Your task to perform on an android device: Open maps Image 0: 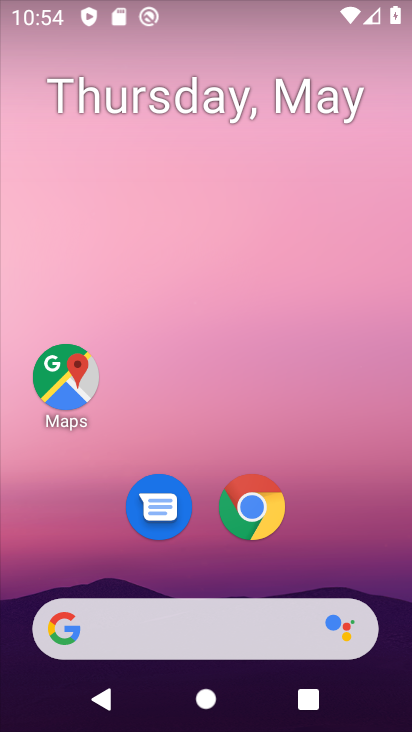
Step 0: drag from (200, 626) to (202, 12)
Your task to perform on an android device: Open maps Image 1: 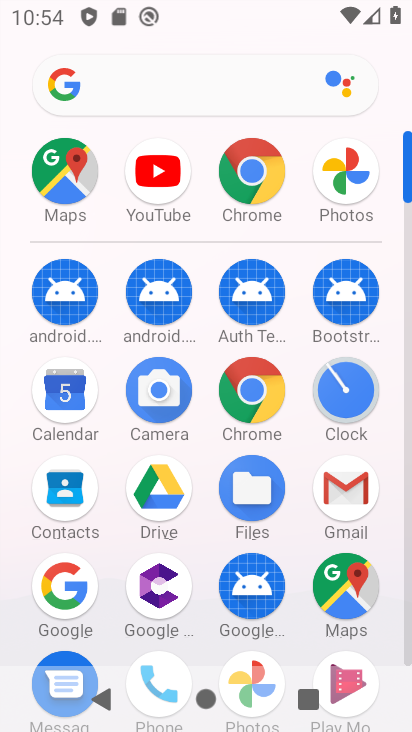
Step 1: click (331, 598)
Your task to perform on an android device: Open maps Image 2: 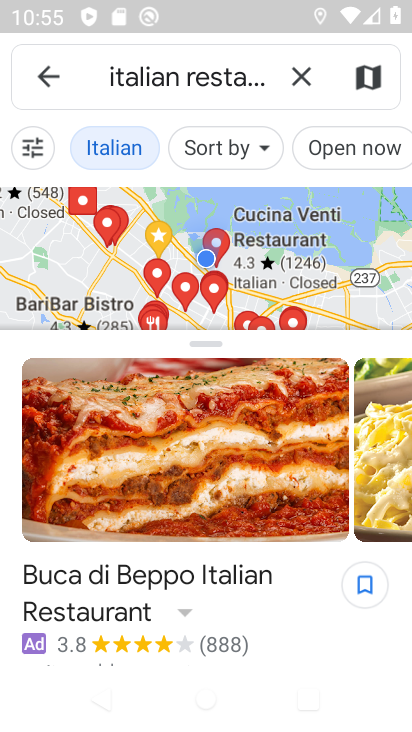
Step 2: task complete